Your task to perform on an android device: Show me recent news Image 0: 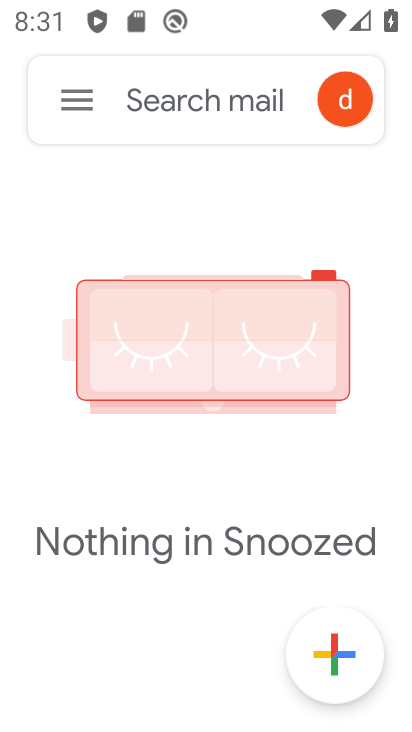
Step 0: press home button
Your task to perform on an android device: Show me recent news Image 1: 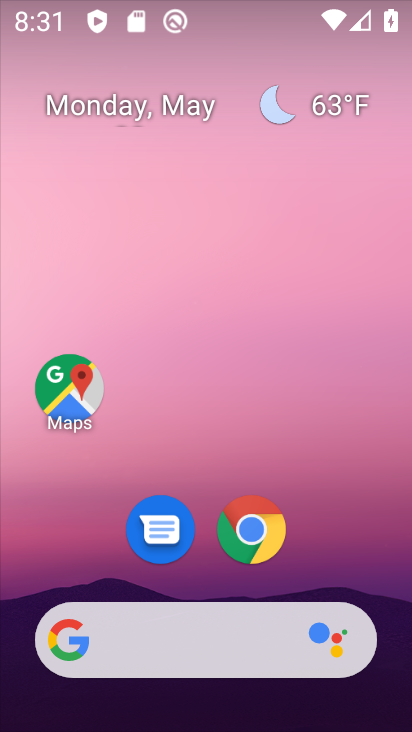
Step 1: task complete